Your task to perform on an android device: remove spam from my inbox in the gmail app Image 0: 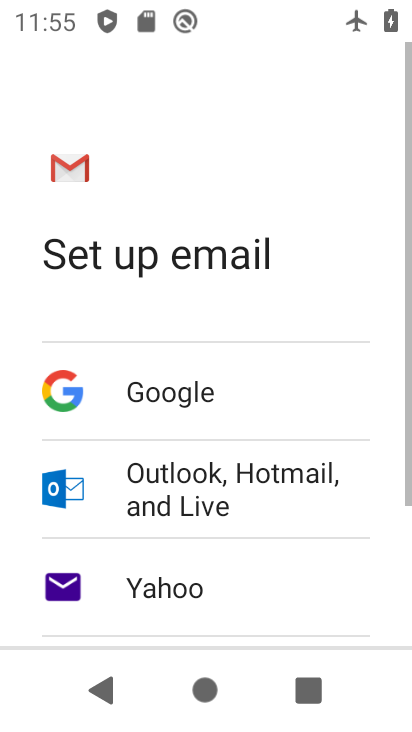
Step 0: press home button
Your task to perform on an android device: remove spam from my inbox in the gmail app Image 1: 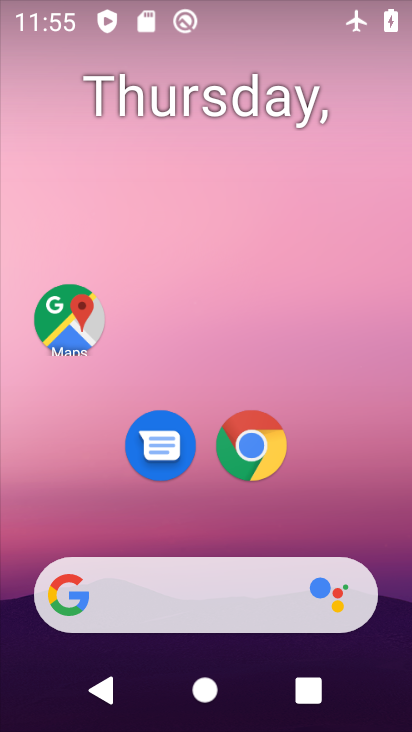
Step 1: drag from (377, 523) to (293, 15)
Your task to perform on an android device: remove spam from my inbox in the gmail app Image 2: 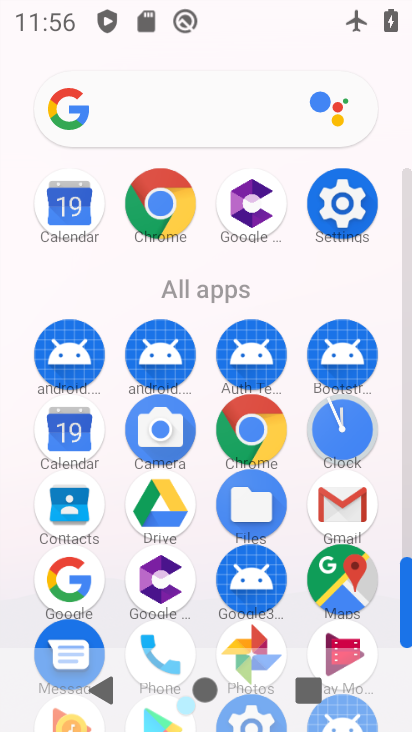
Step 2: click (359, 498)
Your task to perform on an android device: remove spam from my inbox in the gmail app Image 3: 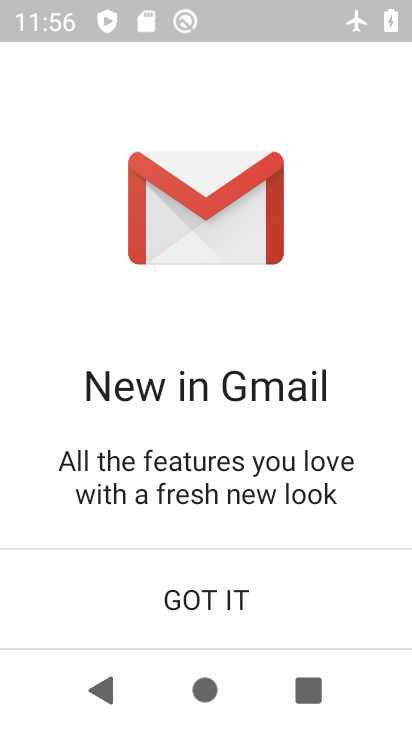
Step 3: click (241, 594)
Your task to perform on an android device: remove spam from my inbox in the gmail app Image 4: 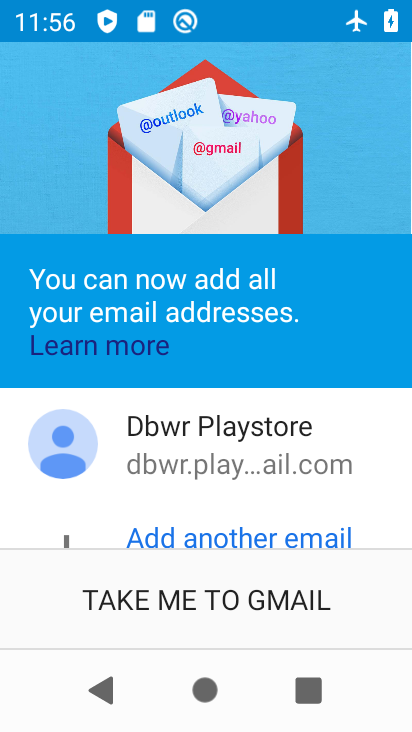
Step 4: click (241, 594)
Your task to perform on an android device: remove spam from my inbox in the gmail app Image 5: 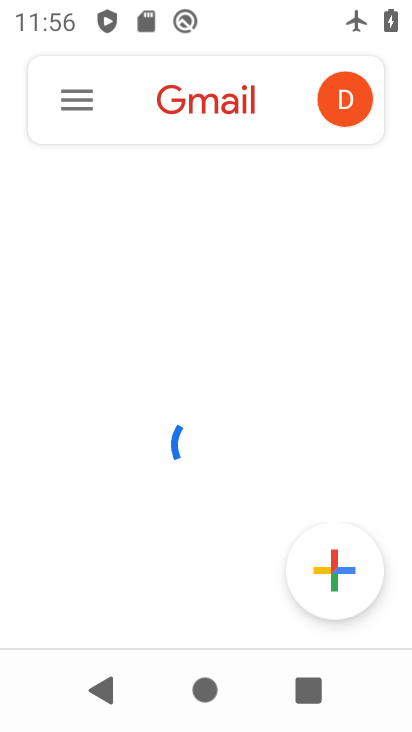
Step 5: click (241, 594)
Your task to perform on an android device: remove spam from my inbox in the gmail app Image 6: 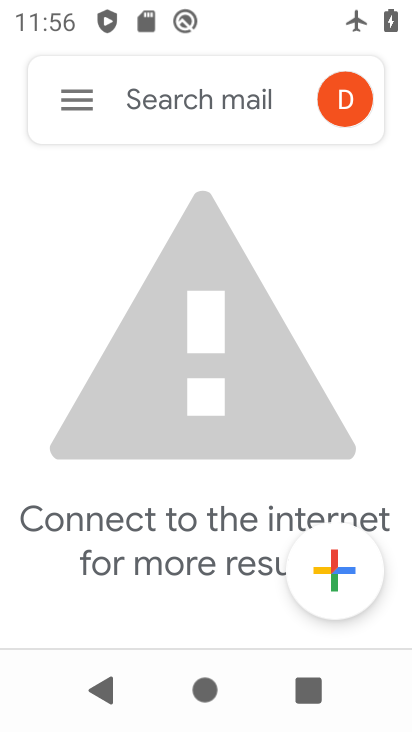
Step 6: click (83, 99)
Your task to perform on an android device: remove spam from my inbox in the gmail app Image 7: 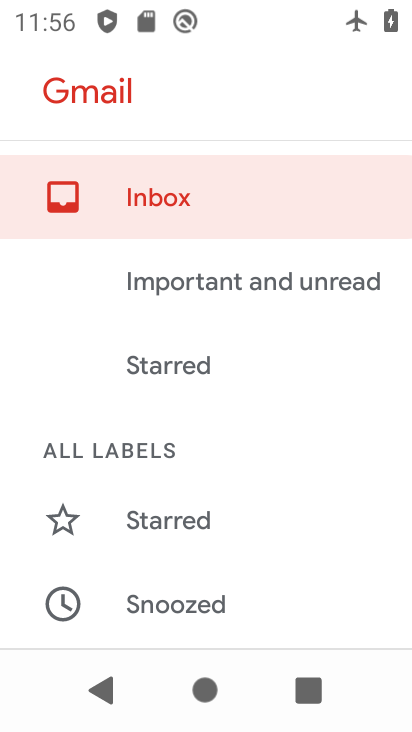
Step 7: drag from (250, 504) to (223, 182)
Your task to perform on an android device: remove spam from my inbox in the gmail app Image 8: 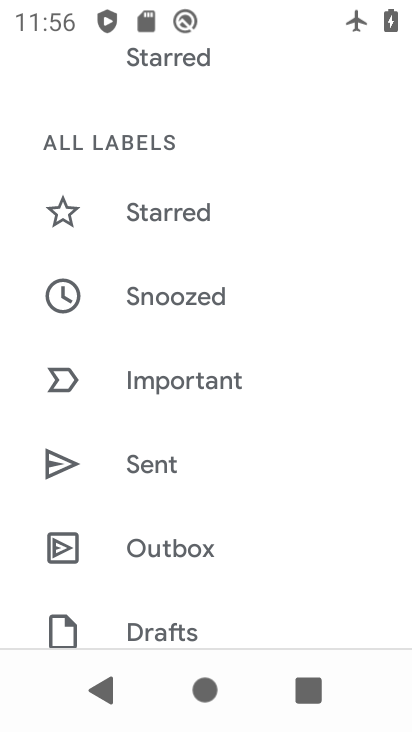
Step 8: drag from (263, 509) to (228, 180)
Your task to perform on an android device: remove spam from my inbox in the gmail app Image 9: 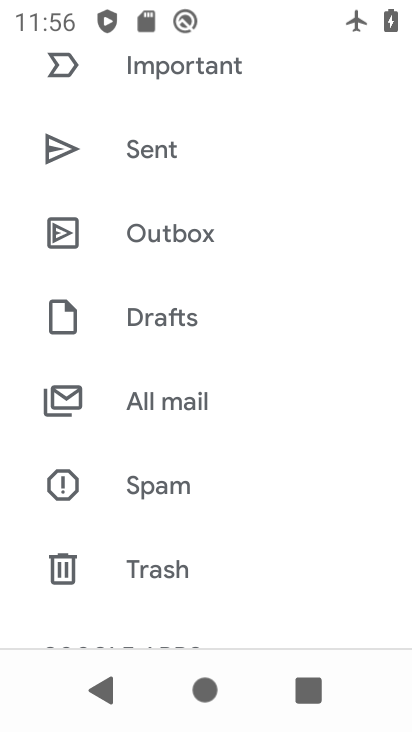
Step 9: click (223, 476)
Your task to perform on an android device: remove spam from my inbox in the gmail app Image 10: 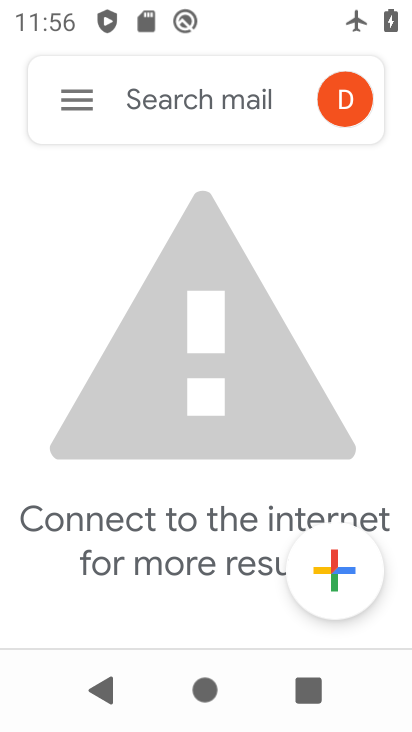
Step 10: task complete